Your task to perform on an android device: add a label to a message in the gmail app Image 0: 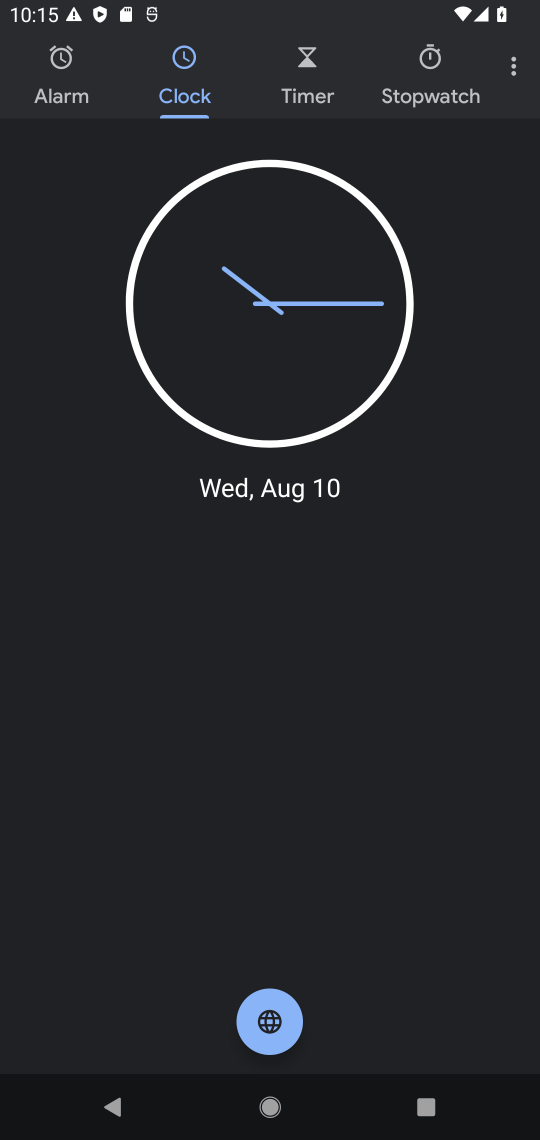
Step 0: press home button
Your task to perform on an android device: add a label to a message in the gmail app Image 1: 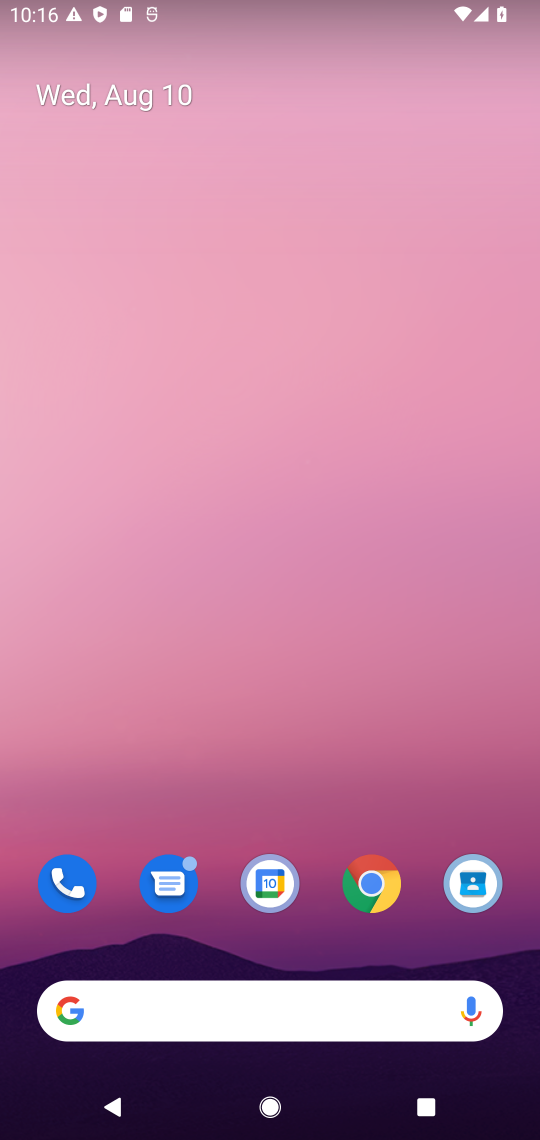
Step 1: drag from (301, 935) to (399, 130)
Your task to perform on an android device: add a label to a message in the gmail app Image 2: 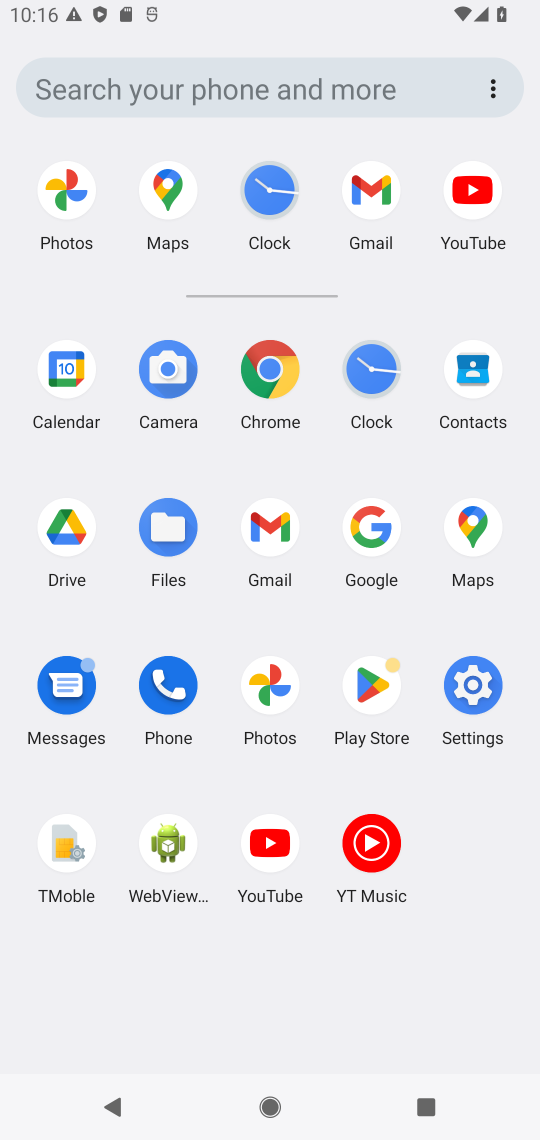
Step 2: click (258, 522)
Your task to perform on an android device: add a label to a message in the gmail app Image 3: 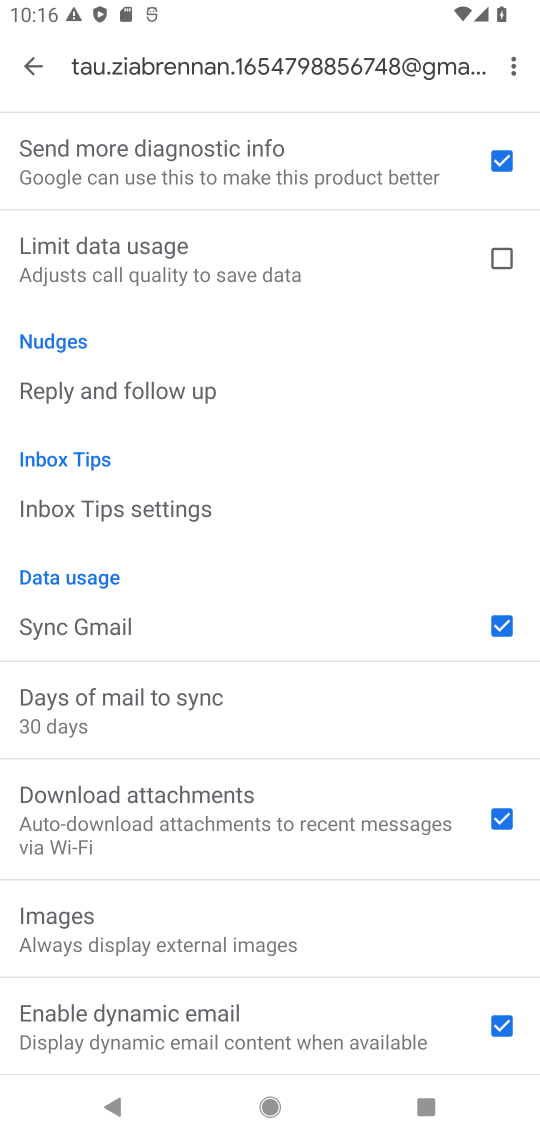
Step 3: click (30, 62)
Your task to perform on an android device: add a label to a message in the gmail app Image 4: 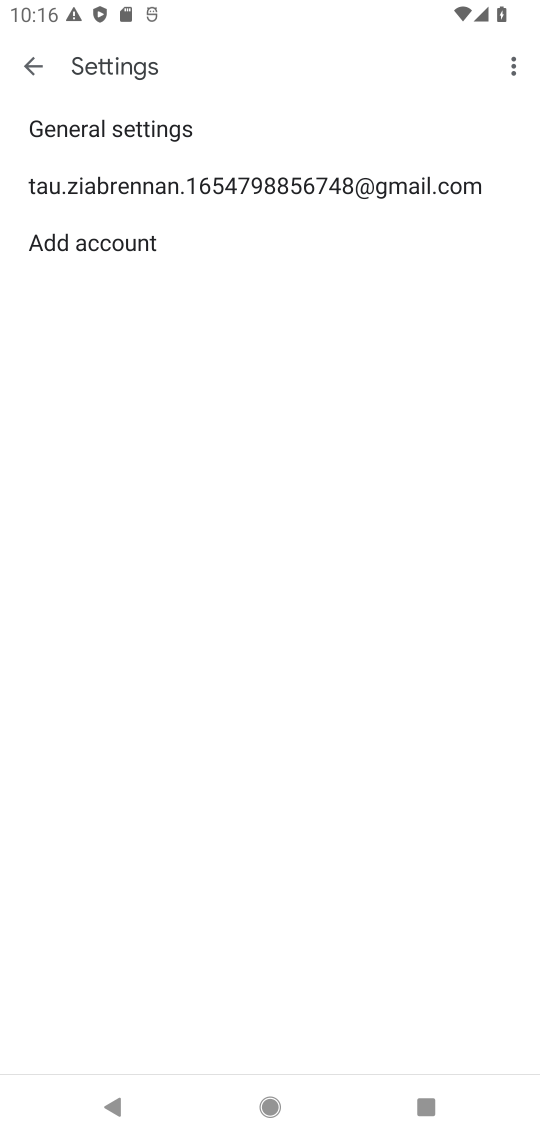
Step 4: click (20, 53)
Your task to perform on an android device: add a label to a message in the gmail app Image 5: 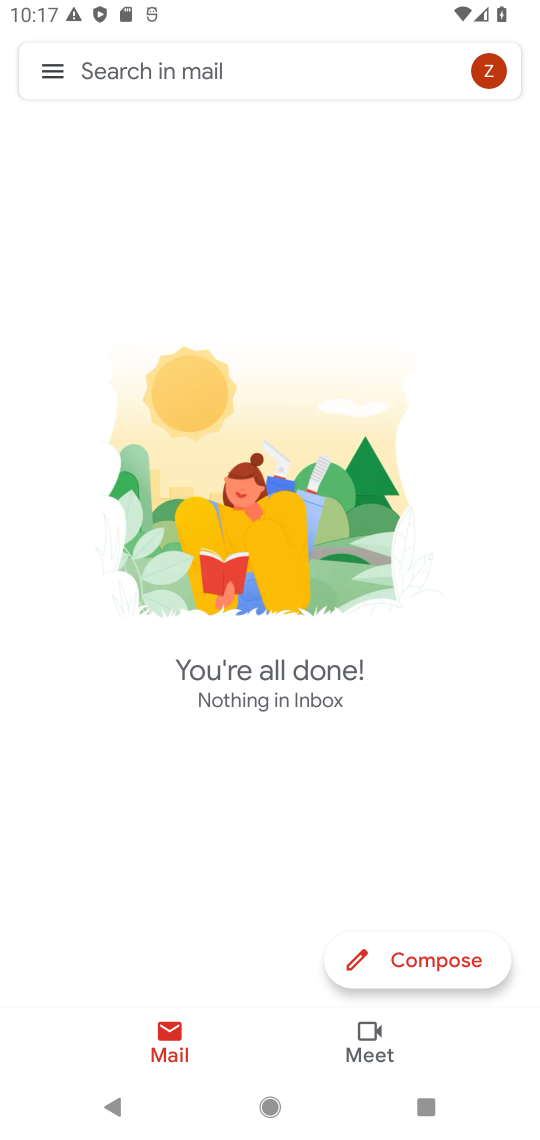
Step 5: task complete